Your task to perform on an android device: Go to notification settings Image 0: 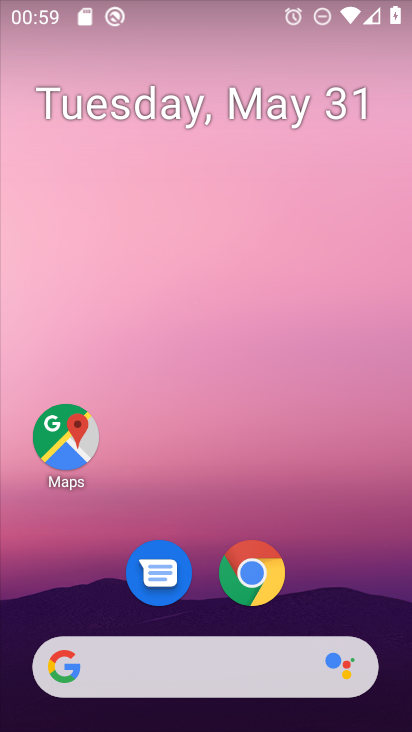
Step 0: drag from (230, 392) to (197, 67)
Your task to perform on an android device: Go to notification settings Image 1: 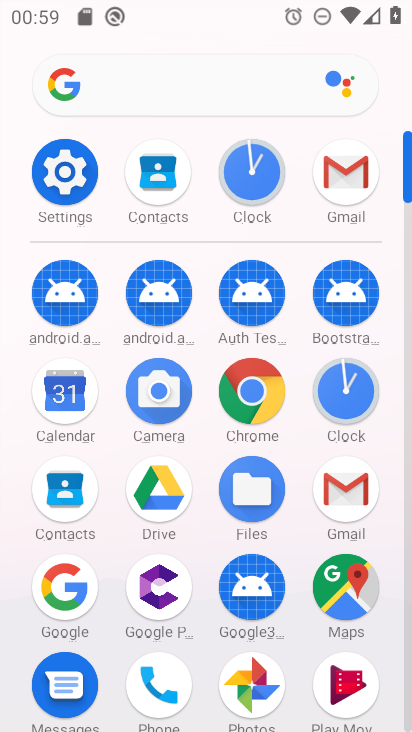
Step 1: click (74, 157)
Your task to perform on an android device: Go to notification settings Image 2: 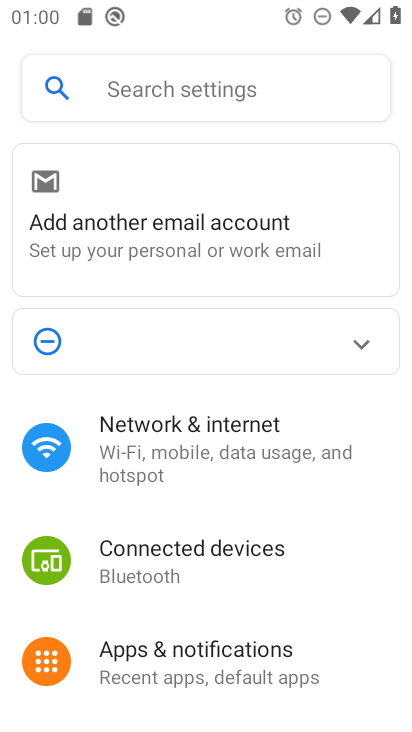
Step 2: click (252, 661)
Your task to perform on an android device: Go to notification settings Image 3: 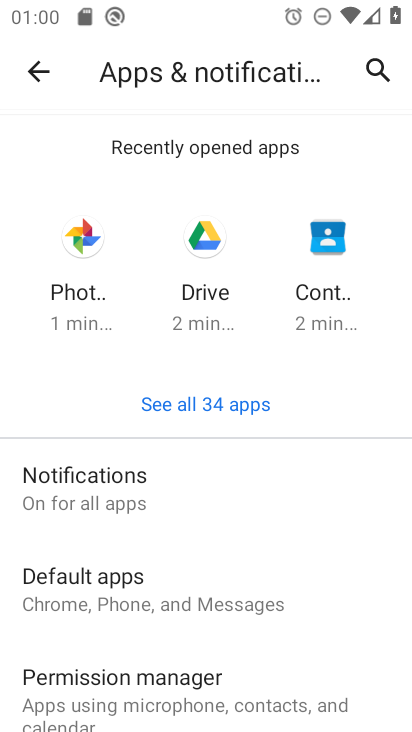
Step 3: task complete